Your task to perform on an android device: read, delete, or share a saved page in the chrome app Image 0: 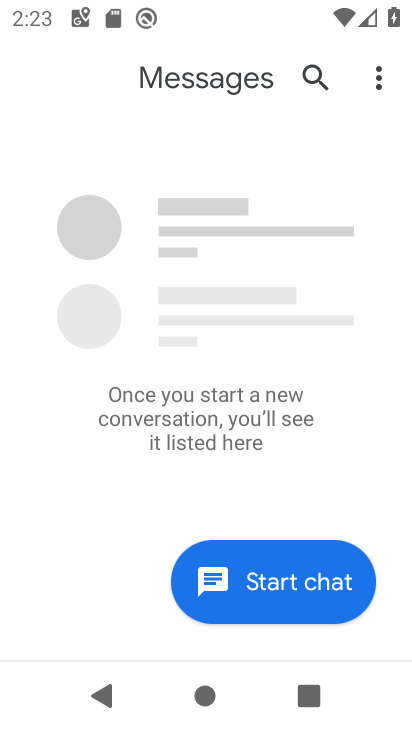
Step 0: press home button
Your task to perform on an android device: read, delete, or share a saved page in the chrome app Image 1: 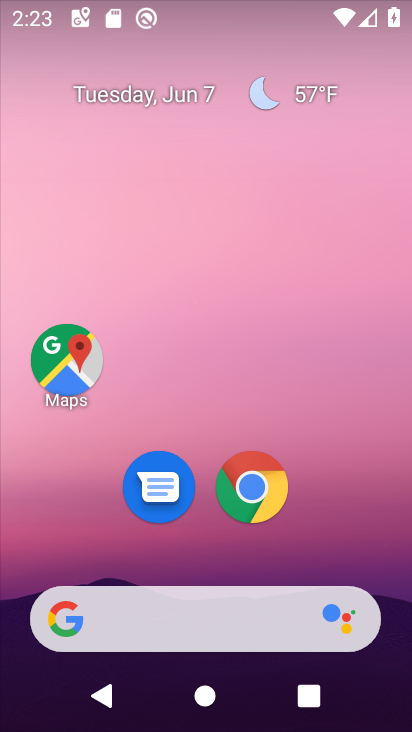
Step 1: click (237, 492)
Your task to perform on an android device: read, delete, or share a saved page in the chrome app Image 2: 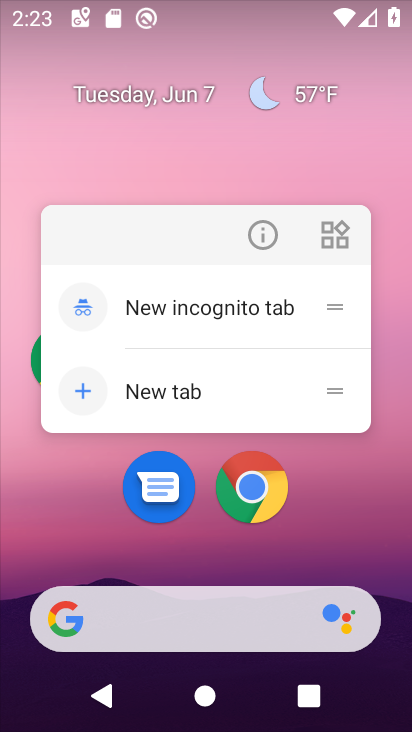
Step 2: click (258, 508)
Your task to perform on an android device: read, delete, or share a saved page in the chrome app Image 3: 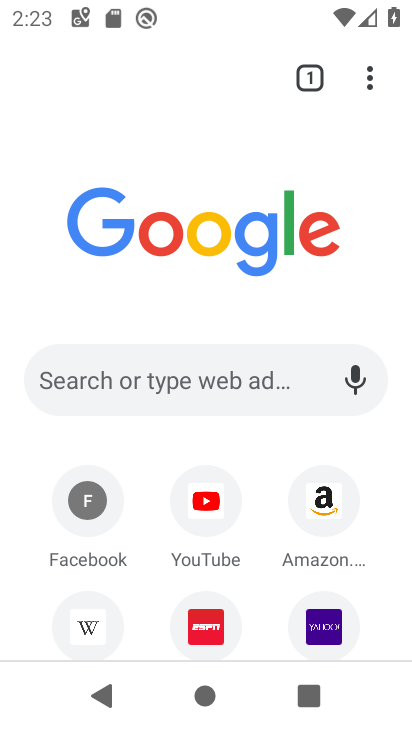
Step 3: task complete